Your task to perform on an android device: turn off airplane mode Image 0: 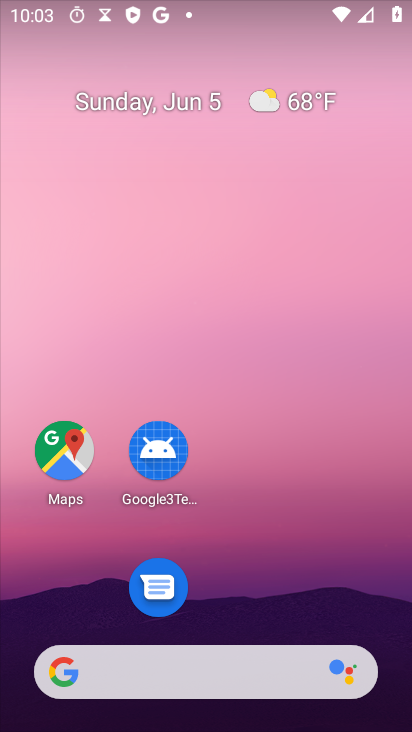
Step 0: drag from (50, 491) to (236, 29)
Your task to perform on an android device: turn off airplane mode Image 1: 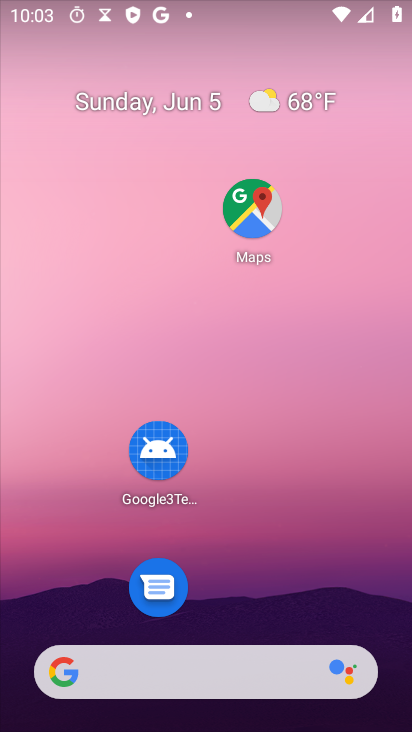
Step 1: drag from (277, 556) to (302, 3)
Your task to perform on an android device: turn off airplane mode Image 2: 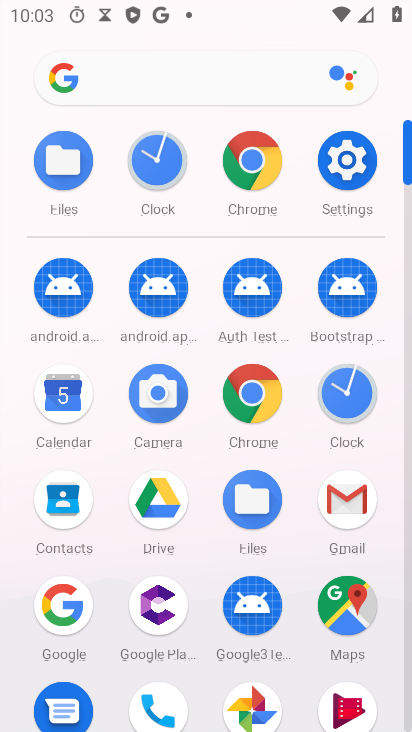
Step 2: click (355, 144)
Your task to perform on an android device: turn off airplane mode Image 3: 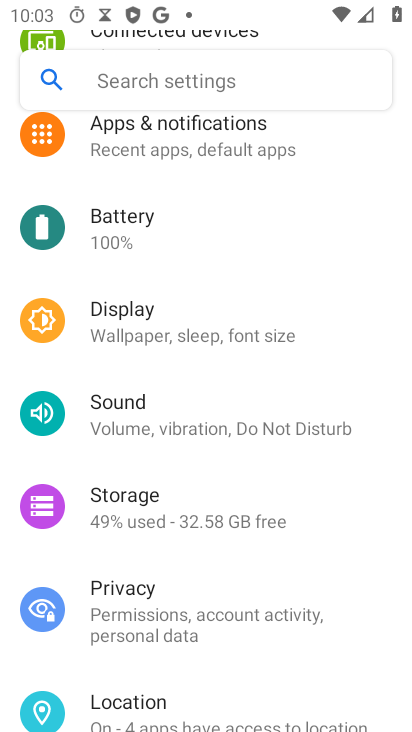
Step 3: drag from (244, 123) to (407, 627)
Your task to perform on an android device: turn off airplane mode Image 4: 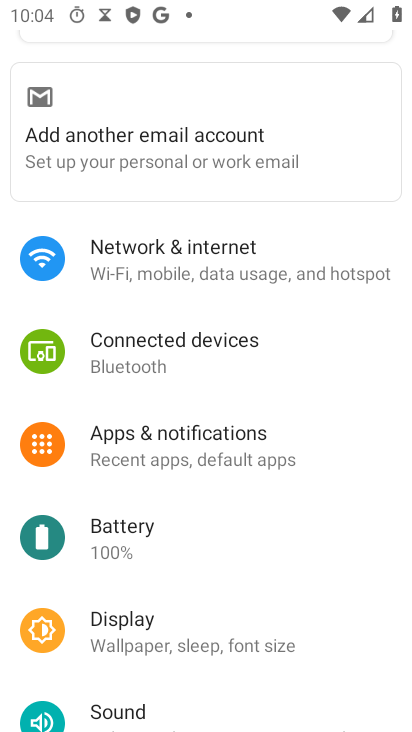
Step 4: click (283, 267)
Your task to perform on an android device: turn off airplane mode Image 5: 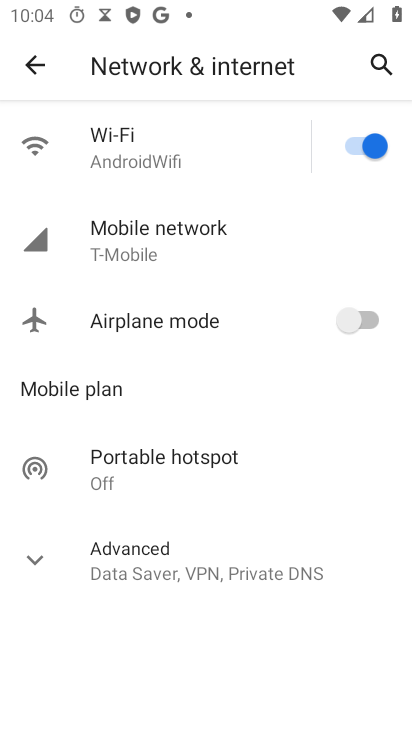
Step 5: task complete